Your task to perform on an android device: all mails in gmail Image 0: 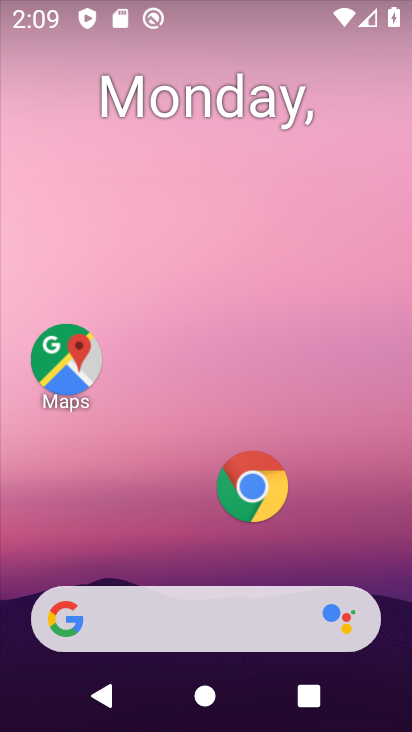
Step 0: drag from (342, 532) to (341, 75)
Your task to perform on an android device: all mails in gmail Image 1: 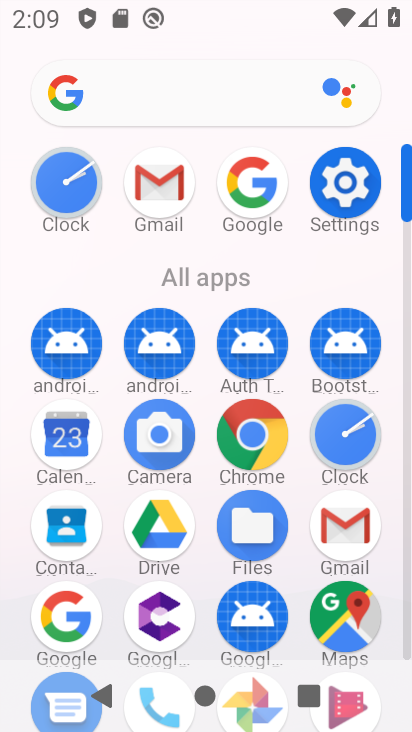
Step 1: click (342, 526)
Your task to perform on an android device: all mails in gmail Image 2: 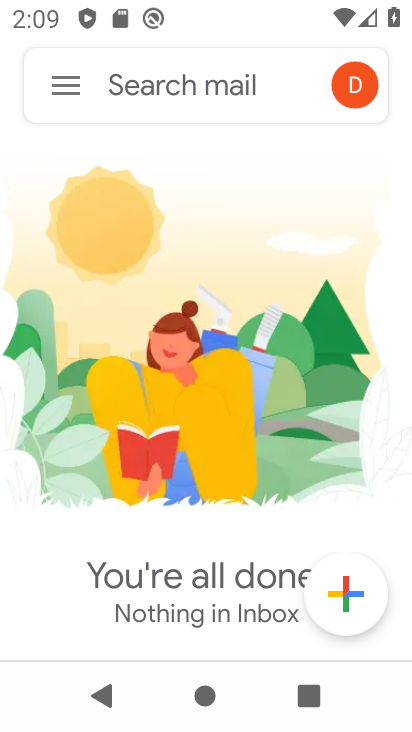
Step 2: click (74, 89)
Your task to perform on an android device: all mails in gmail Image 3: 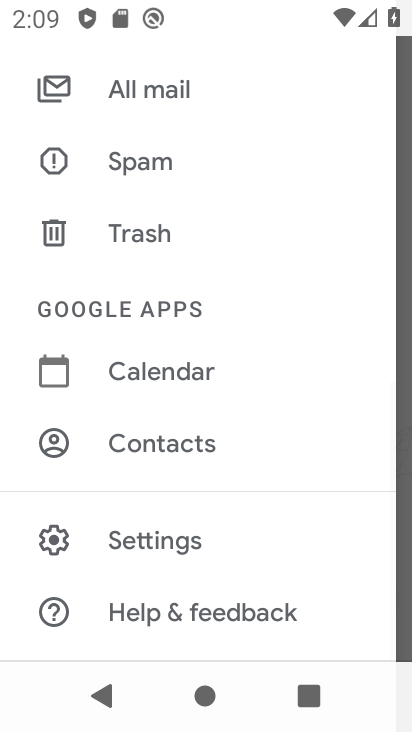
Step 3: click (164, 79)
Your task to perform on an android device: all mails in gmail Image 4: 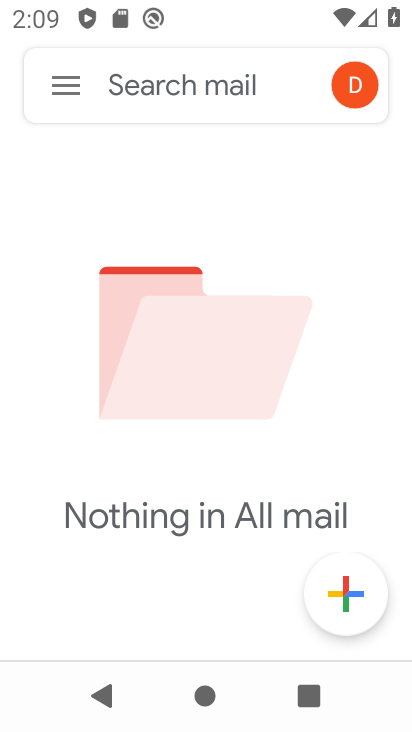
Step 4: task complete